Your task to perform on an android device: turn on showing notifications on the lock screen Image 0: 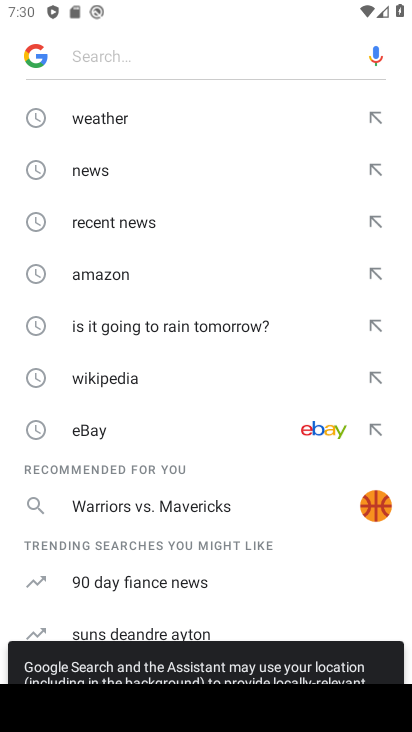
Step 0: press home button
Your task to perform on an android device: turn on showing notifications on the lock screen Image 1: 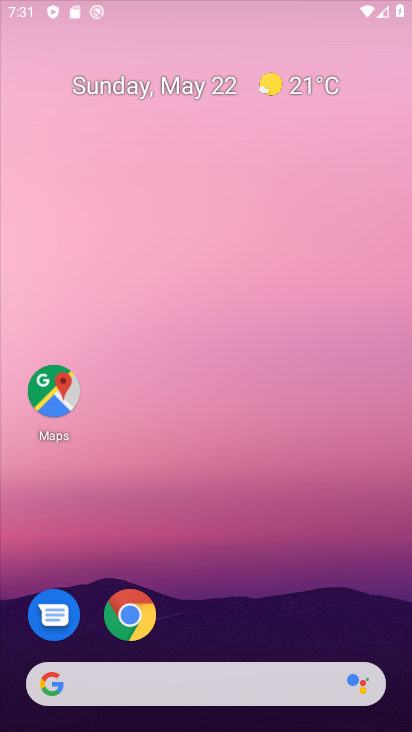
Step 1: drag from (239, 605) to (247, 230)
Your task to perform on an android device: turn on showing notifications on the lock screen Image 2: 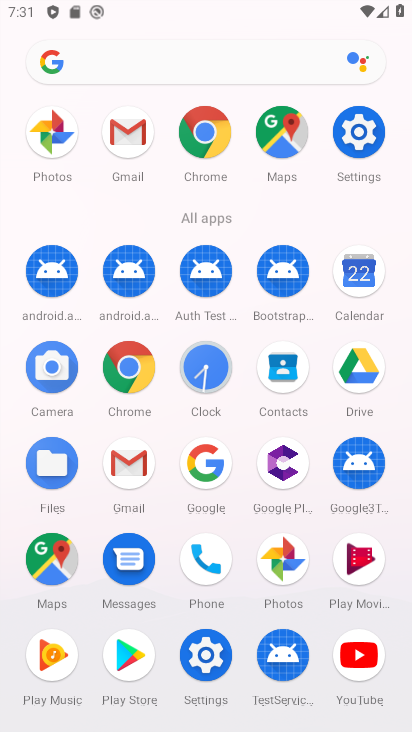
Step 2: click (364, 126)
Your task to perform on an android device: turn on showing notifications on the lock screen Image 3: 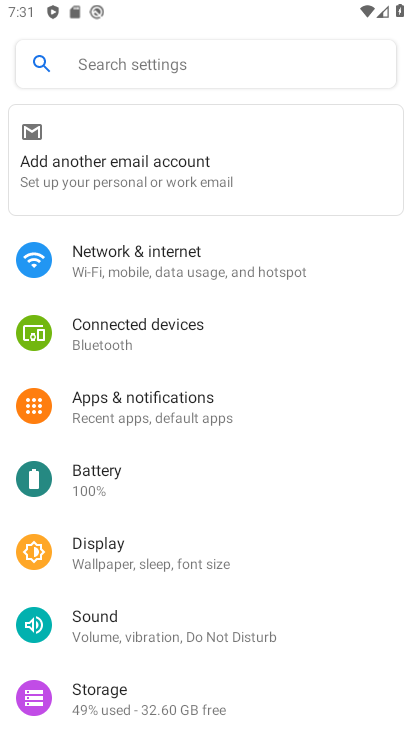
Step 3: click (128, 400)
Your task to perform on an android device: turn on showing notifications on the lock screen Image 4: 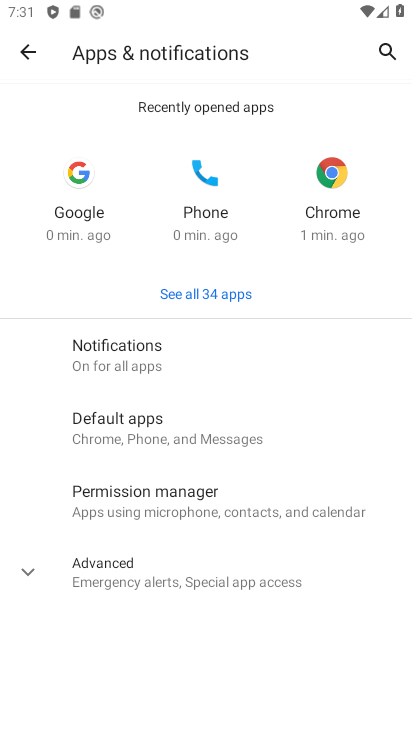
Step 4: click (171, 371)
Your task to perform on an android device: turn on showing notifications on the lock screen Image 5: 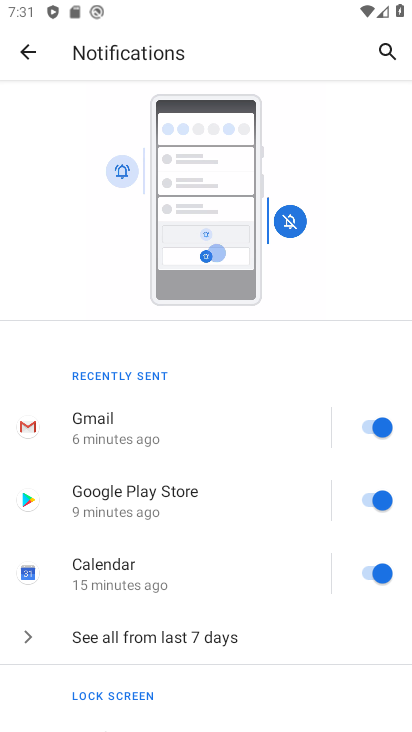
Step 5: drag from (145, 611) to (241, 290)
Your task to perform on an android device: turn on showing notifications on the lock screen Image 6: 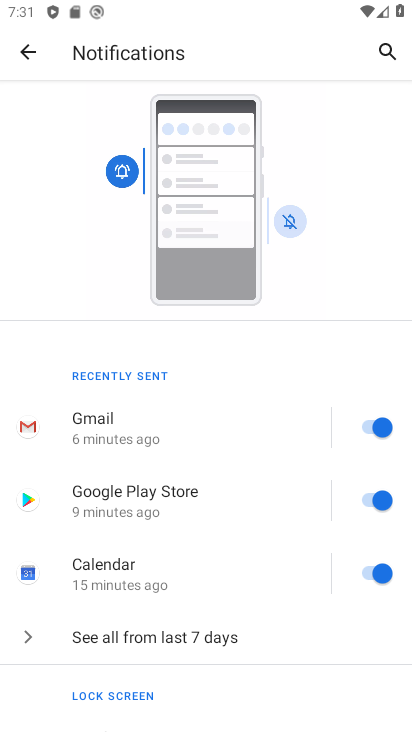
Step 6: drag from (227, 534) to (258, 310)
Your task to perform on an android device: turn on showing notifications on the lock screen Image 7: 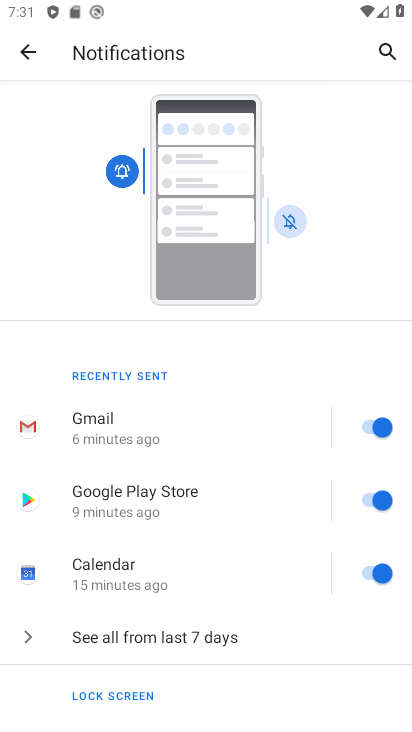
Step 7: drag from (222, 549) to (257, 377)
Your task to perform on an android device: turn on showing notifications on the lock screen Image 8: 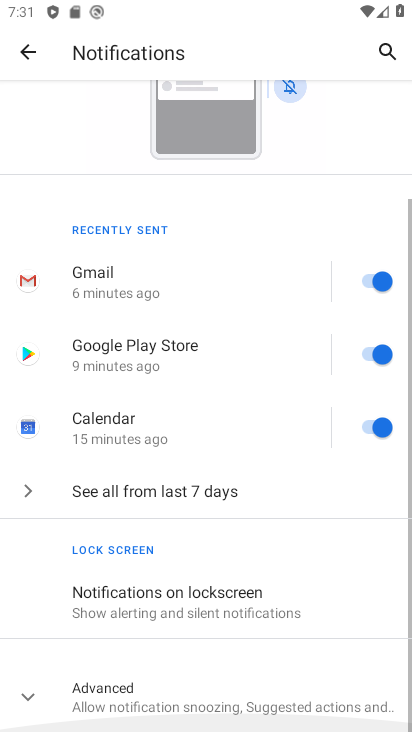
Step 8: drag from (213, 466) to (256, 221)
Your task to perform on an android device: turn on showing notifications on the lock screen Image 9: 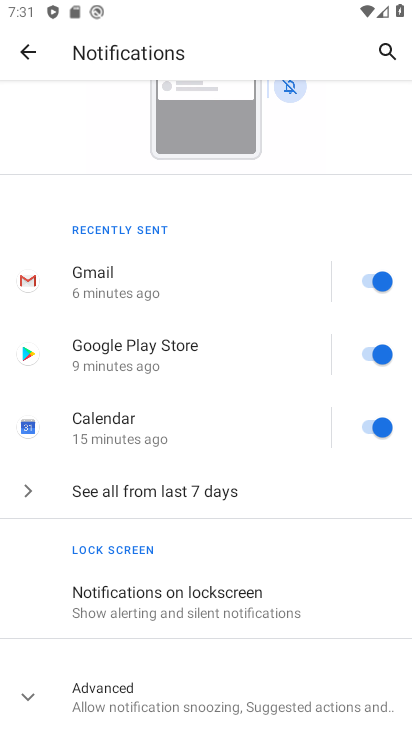
Step 9: click (177, 580)
Your task to perform on an android device: turn on showing notifications on the lock screen Image 10: 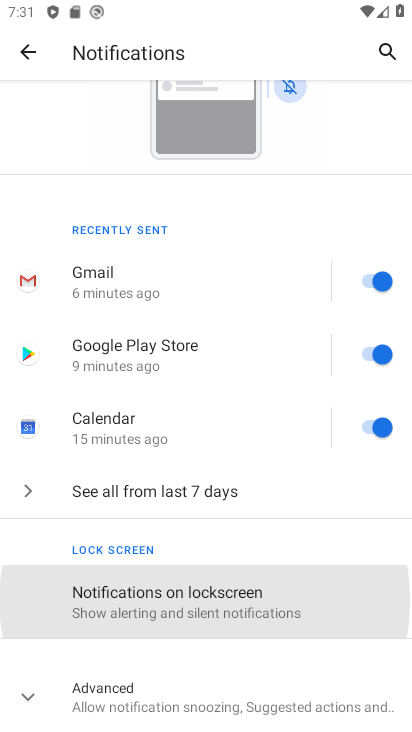
Step 10: click (162, 610)
Your task to perform on an android device: turn on showing notifications on the lock screen Image 11: 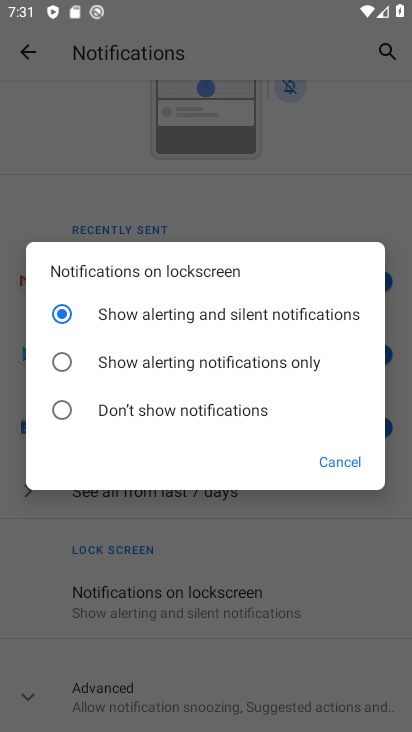
Step 11: click (143, 331)
Your task to perform on an android device: turn on showing notifications on the lock screen Image 12: 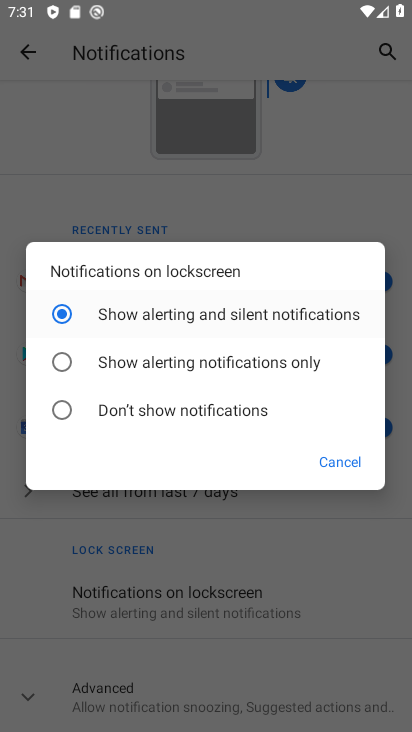
Step 12: click (137, 353)
Your task to perform on an android device: turn on showing notifications on the lock screen Image 13: 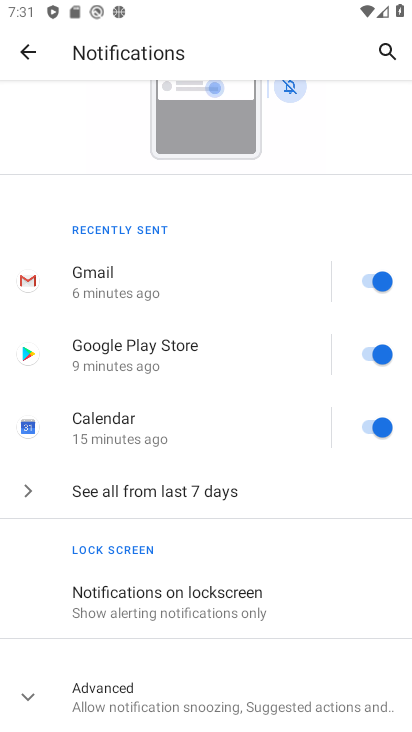
Step 13: task complete